Your task to perform on an android device: Add macbook pro 13 inch to the cart on ebay Image 0: 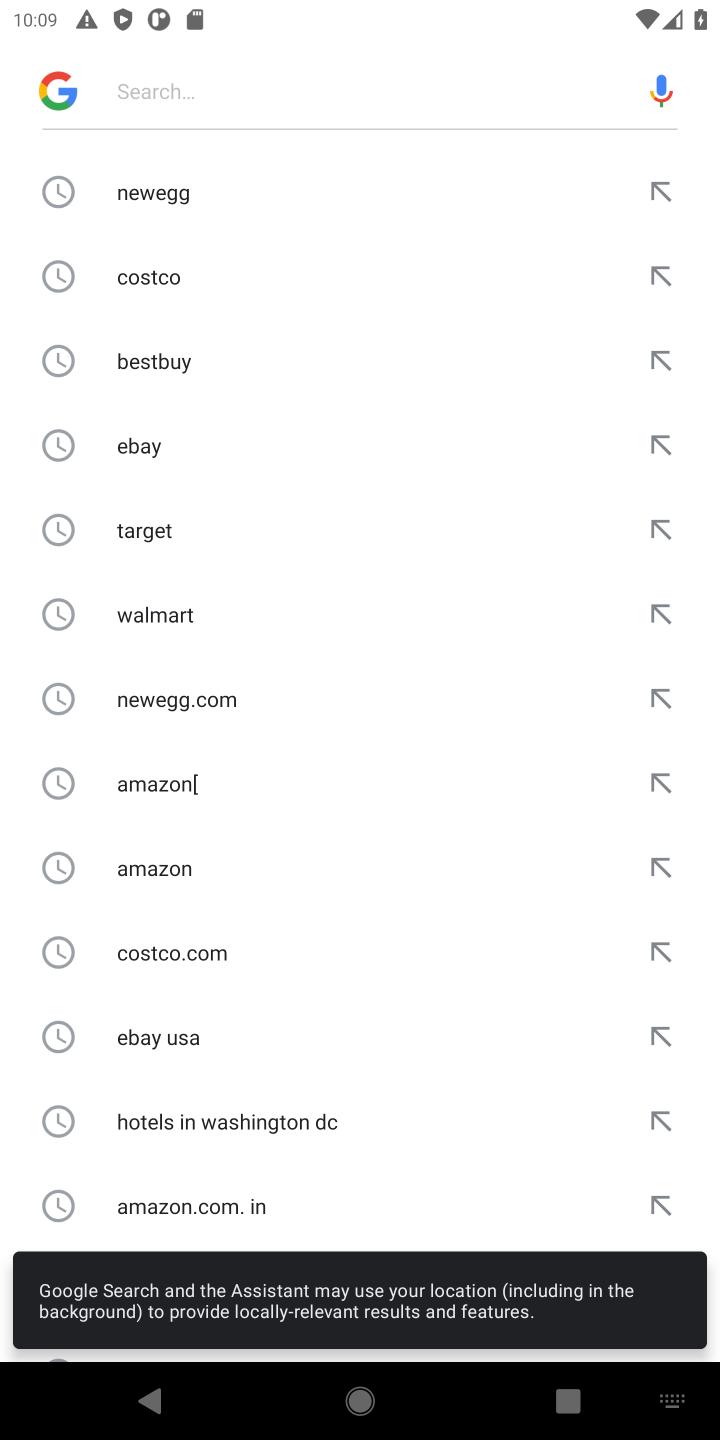
Step 0: press home button
Your task to perform on an android device: Add macbook pro 13 inch to the cart on ebay Image 1: 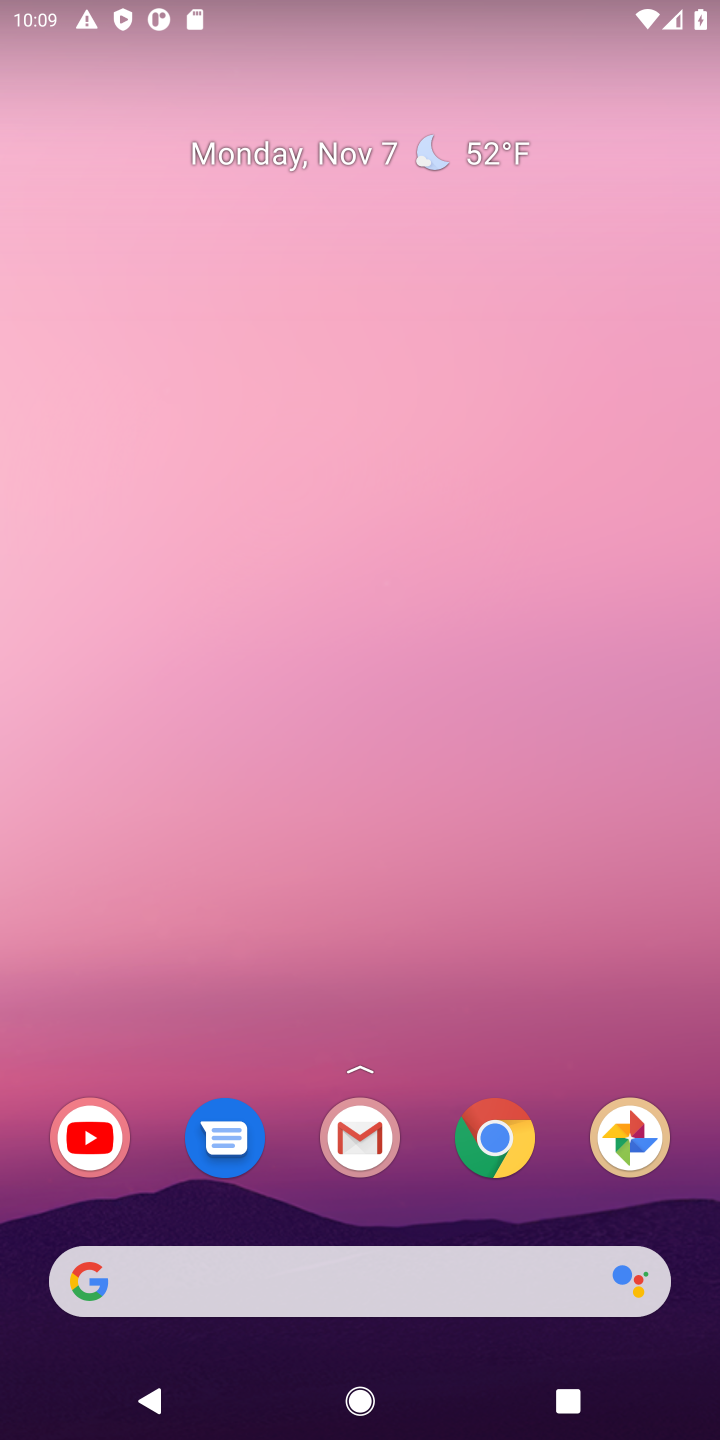
Step 1: press home button
Your task to perform on an android device: Add macbook pro 13 inch to the cart on ebay Image 2: 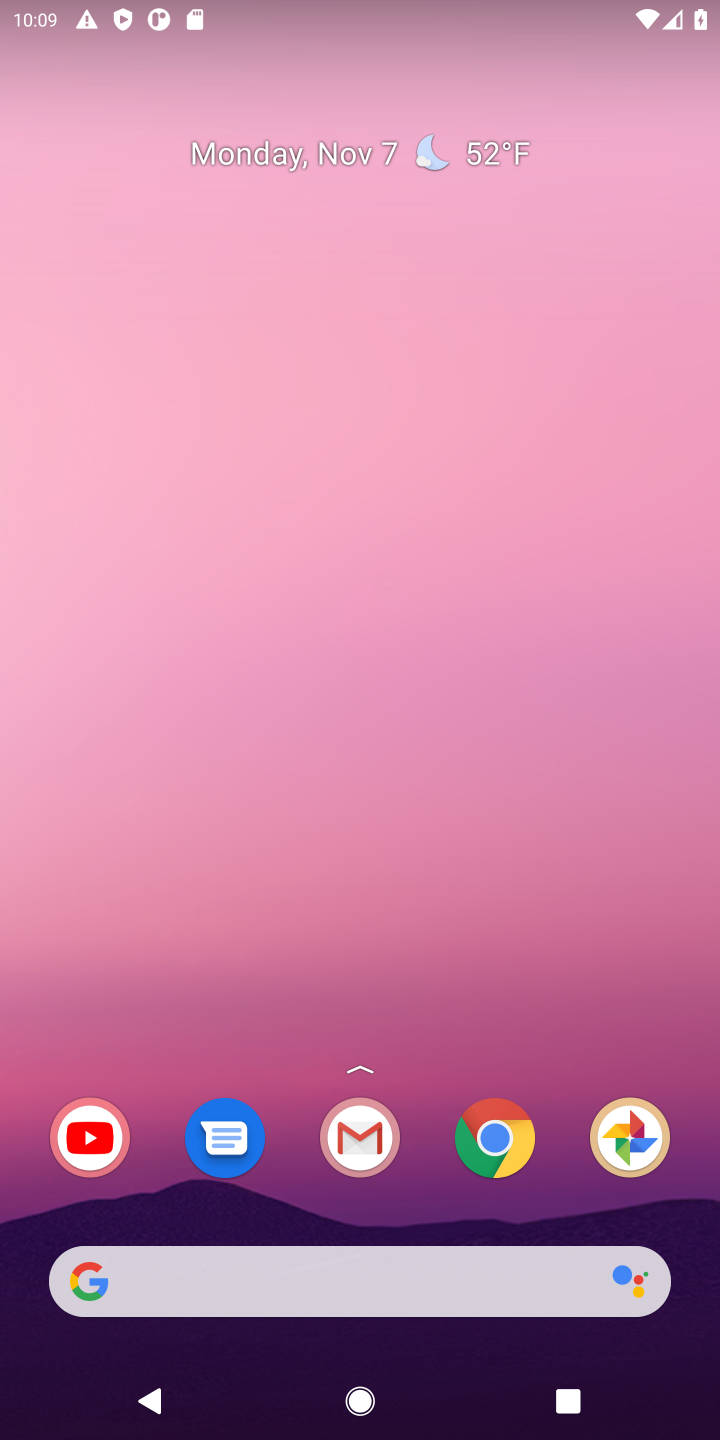
Step 2: click (474, 1142)
Your task to perform on an android device: Add macbook pro 13 inch to the cart on ebay Image 3: 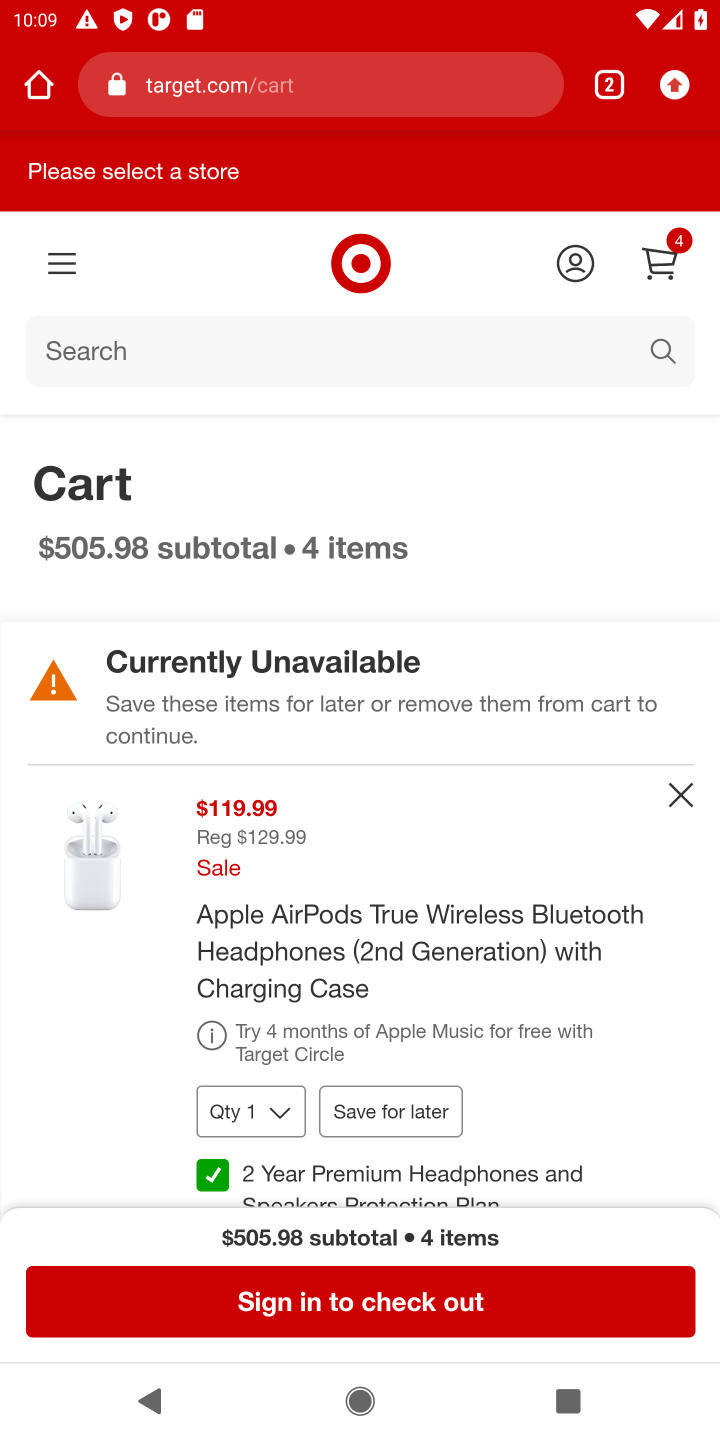
Step 3: click (186, 66)
Your task to perform on an android device: Add macbook pro 13 inch to the cart on ebay Image 4: 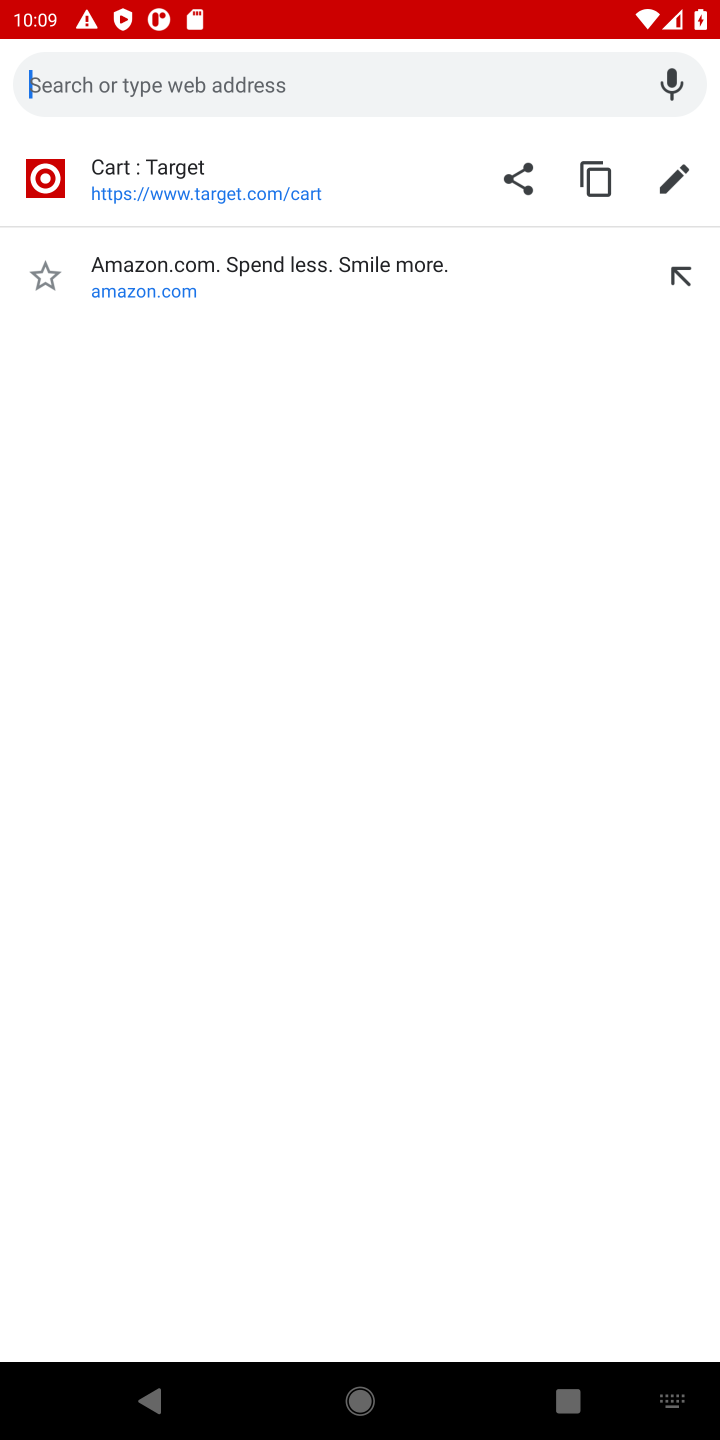
Step 4: type "ebay"
Your task to perform on an android device: Add macbook pro 13 inch to the cart on ebay Image 5: 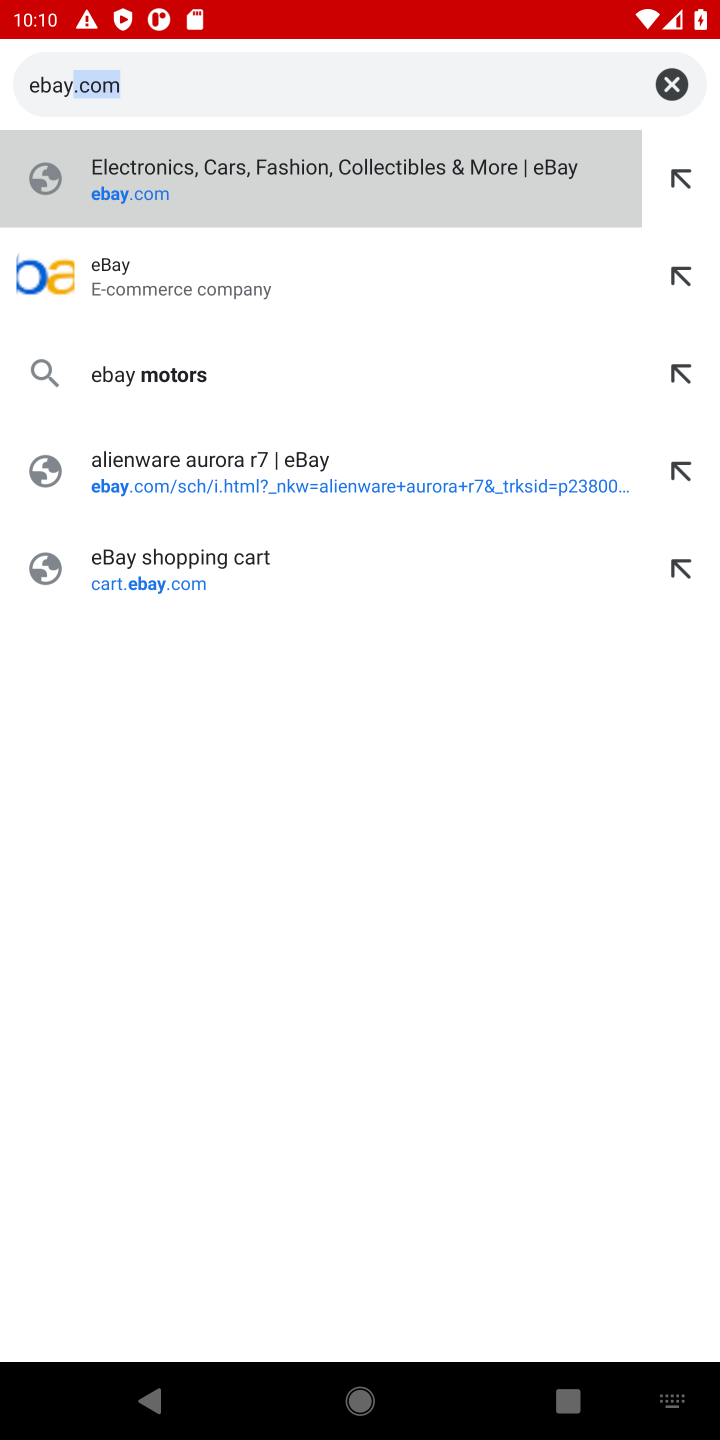
Step 5: click (71, 262)
Your task to perform on an android device: Add macbook pro 13 inch to the cart on ebay Image 6: 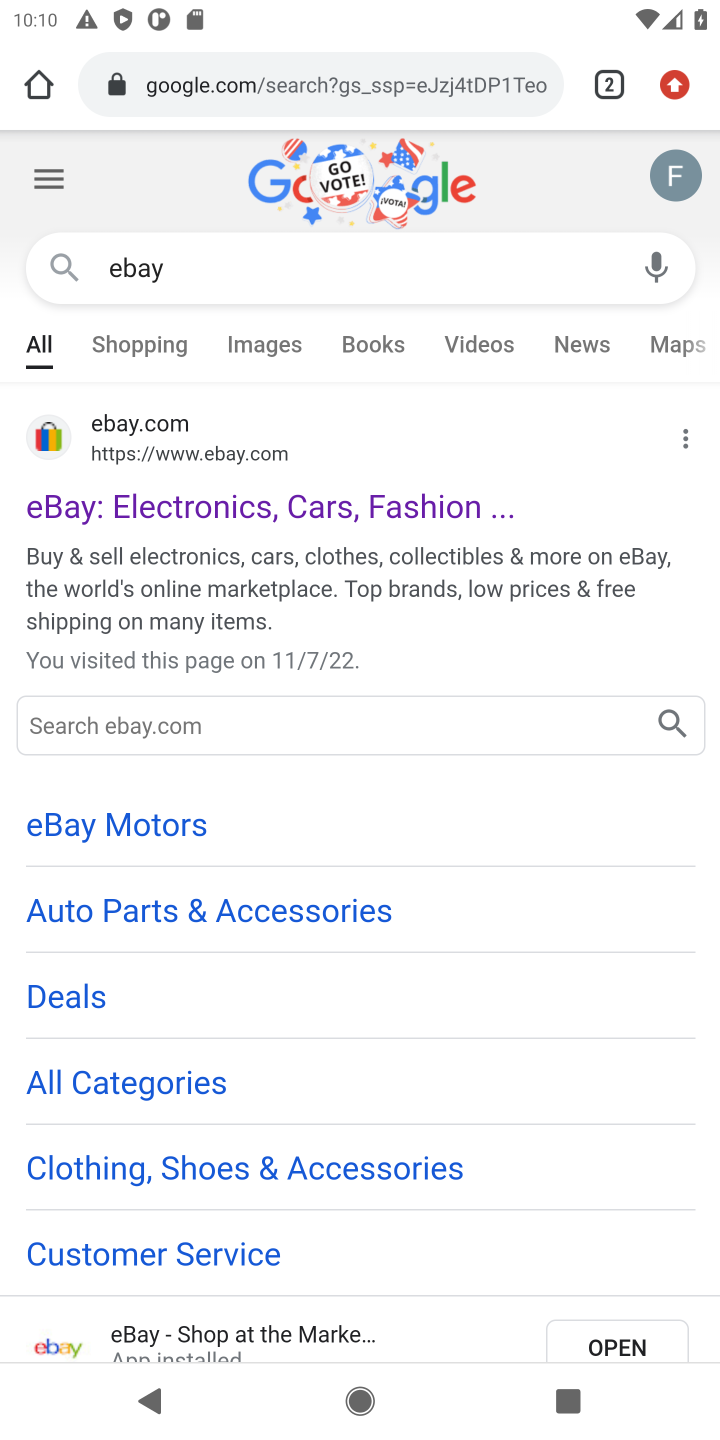
Step 6: click (396, 357)
Your task to perform on an android device: Add macbook pro 13 inch to the cart on ebay Image 7: 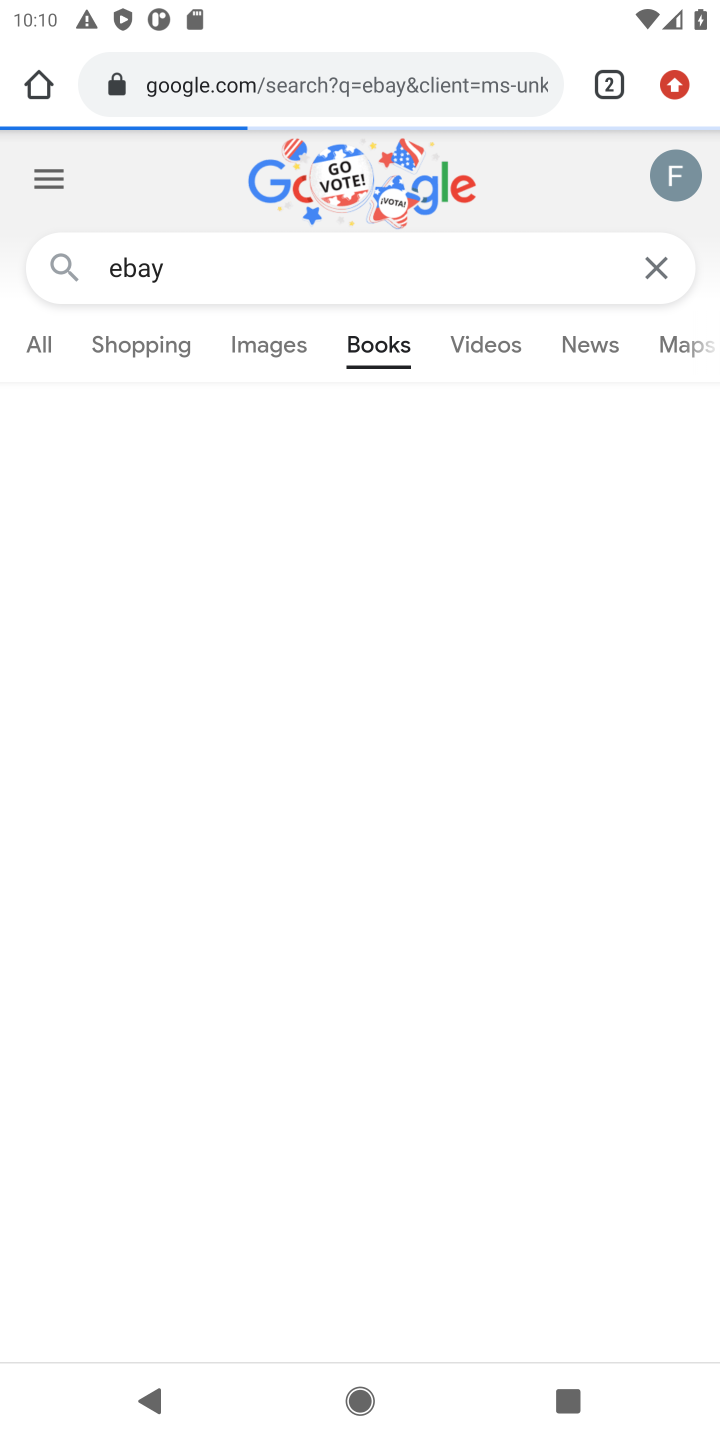
Step 7: click (208, 510)
Your task to perform on an android device: Add macbook pro 13 inch to the cart on ebay Image 8: 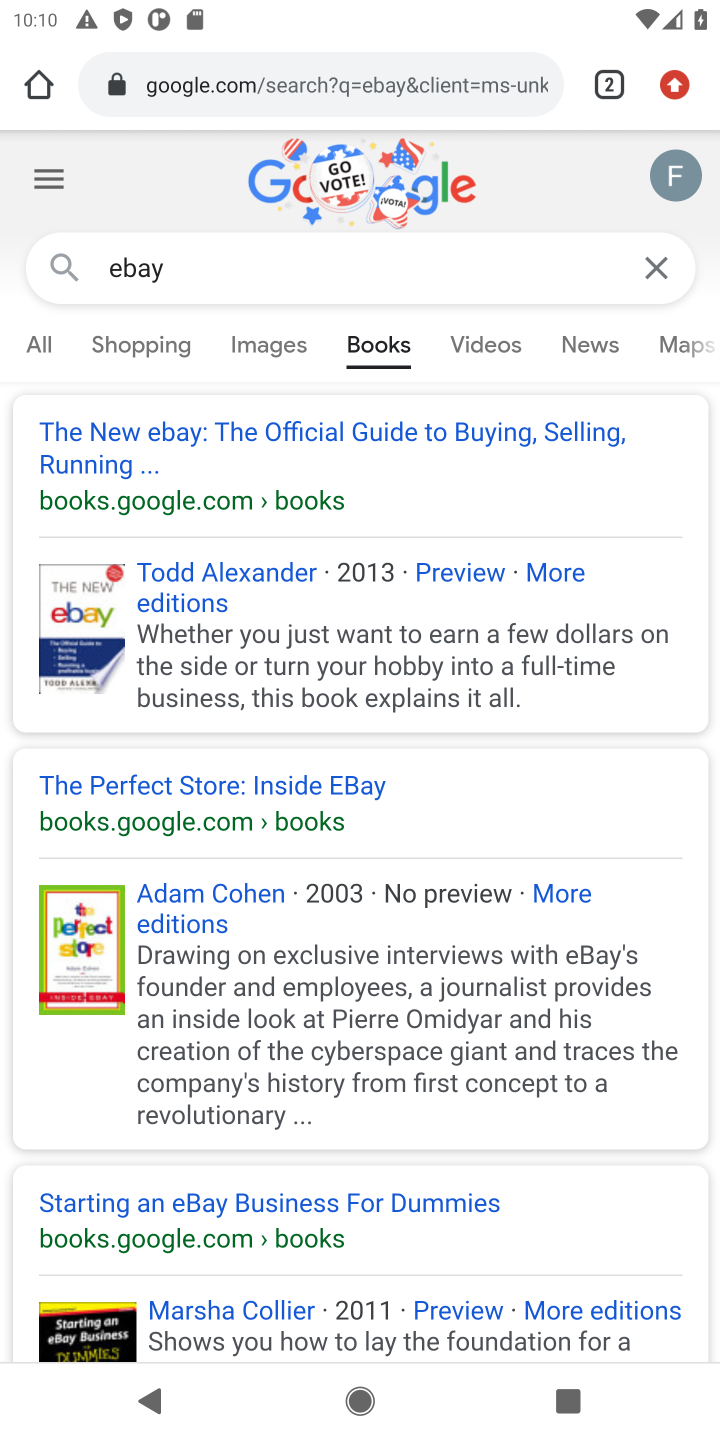
Step 8: drag from (279, 1093) to (422, 347)
Your task to perform on an android device: Add macbook pro 13 inch to the cart on ebay Image 9: 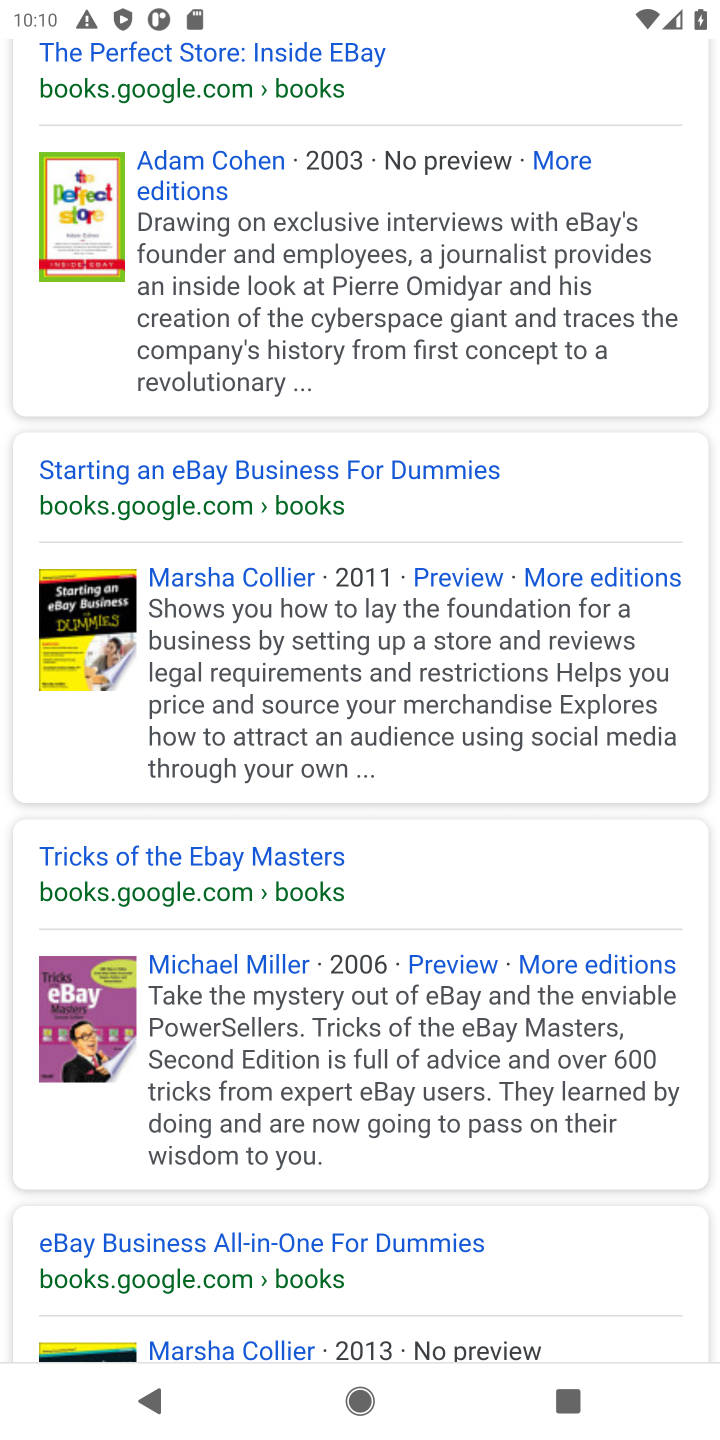
Step 9: press back button
Your task to perform on an android device: Add macbook pro 13 inch to the cart on ebay Image 10: 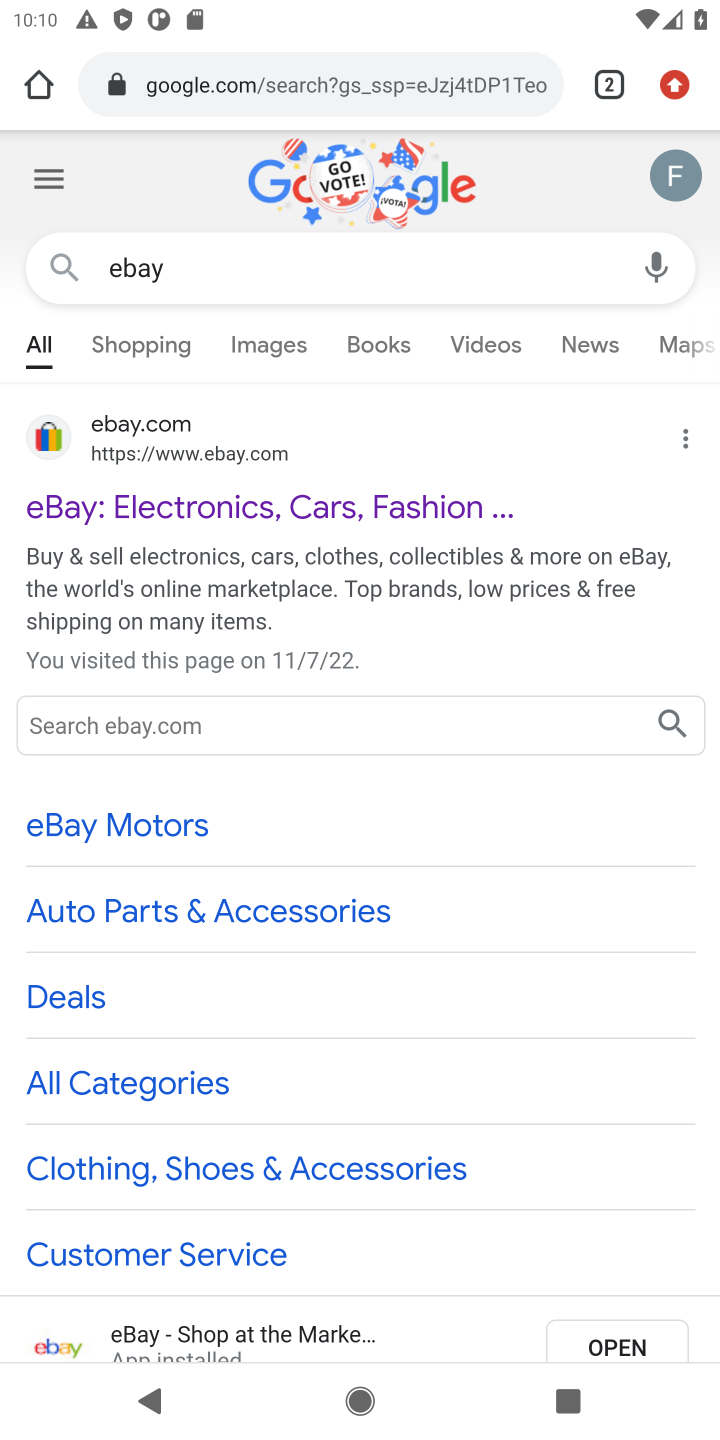
Step 10: drag from (249, 974) to (409, 344)
Your task to perform on an android device: Add macbook pro 13 inch to the cart on ebay Image 11: 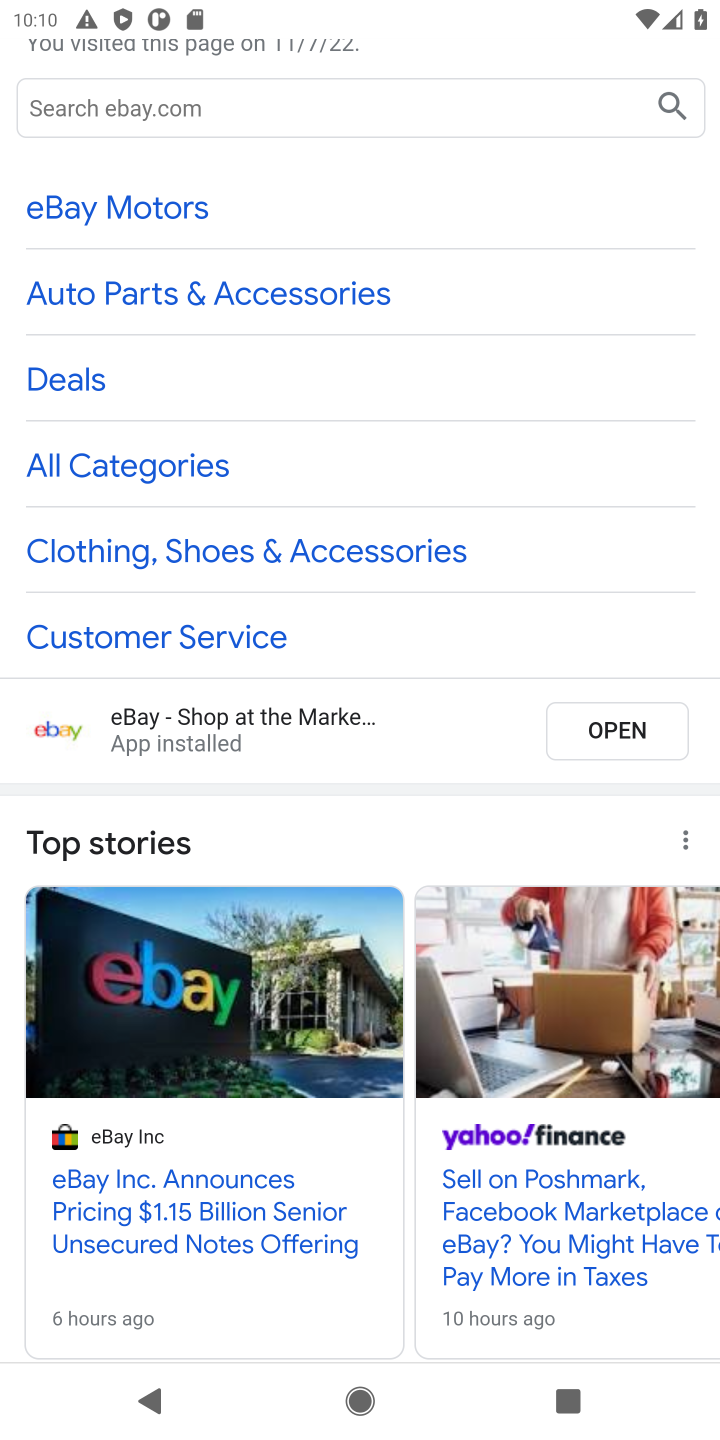
Step 11: drag from (170, 909) to (455, 307)
Your task to perform on an android device: Add macbook pro 13 inch to the cart on ebay Image 12: 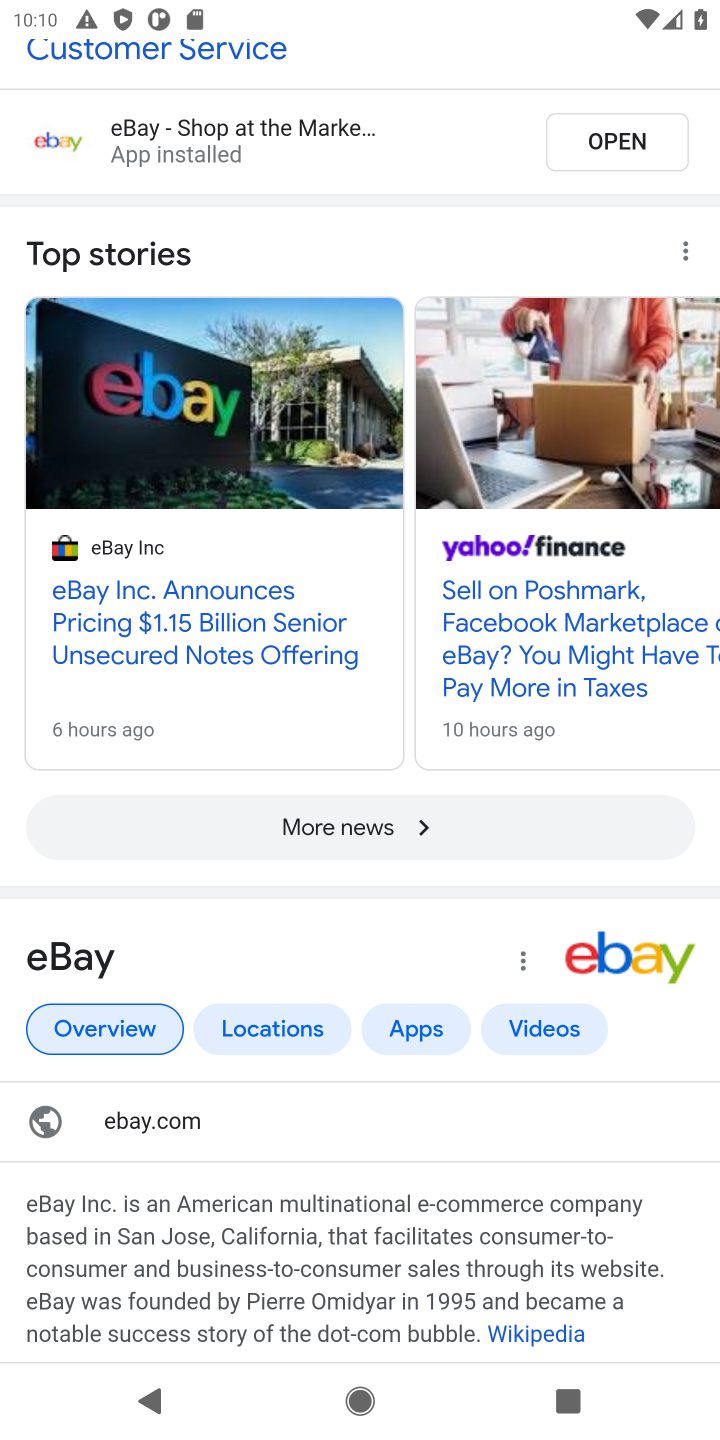
Step 12: drag from (411, 707) to (476, 1147)
Your task to perform on an android device: Add macbook pro 13 inch to the cart on ebay Image 13: 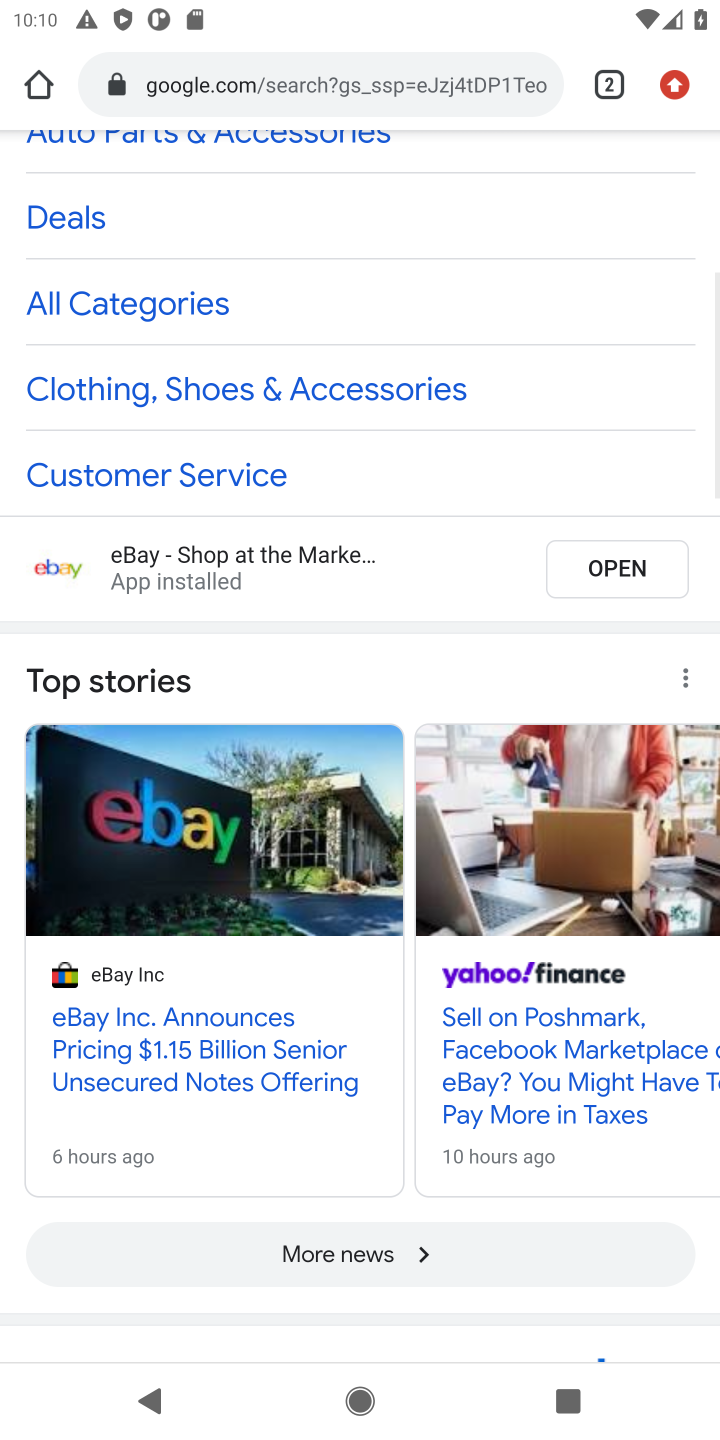
Step 13: drag from (252, 376) to (338, 1204)
Your task to perform on an android device: Add macbook pro 13 inch to the cart on ebay Image 14: 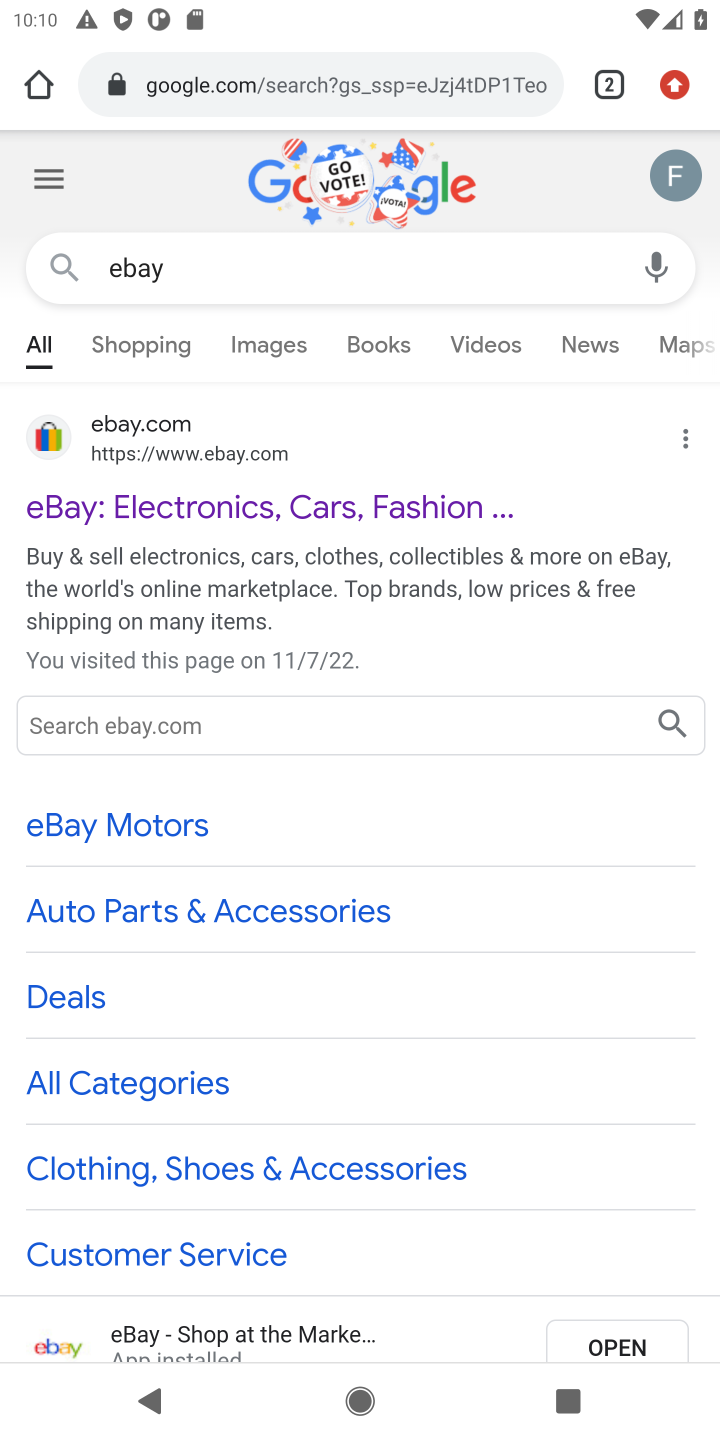
Step 14: click (176, 498)
Your task to perform on an android device: Add macbook pro 13 inch to the cart on ebay Image 15: 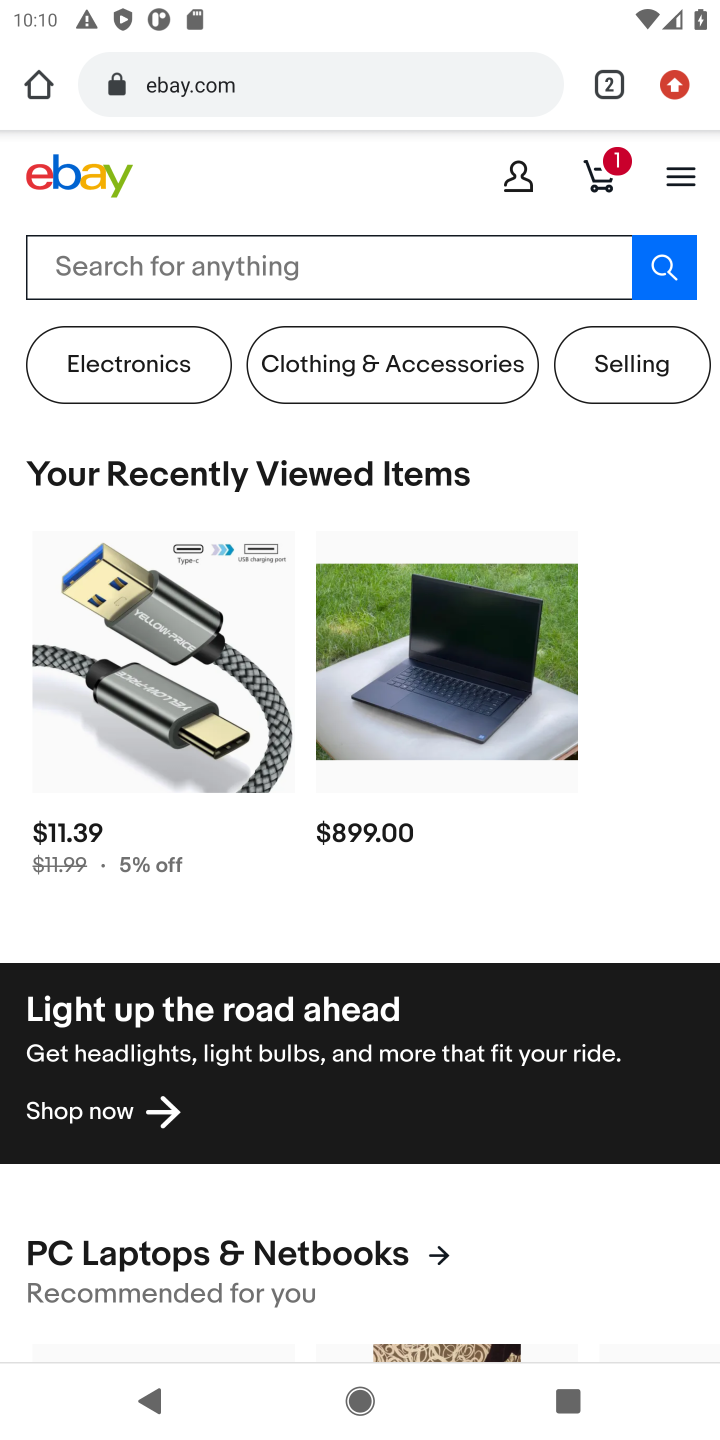
Step 15: click (275, 274)
Your task to perform on an android device: Add macbook pro 13 inch to the cart on ebay Image 16: 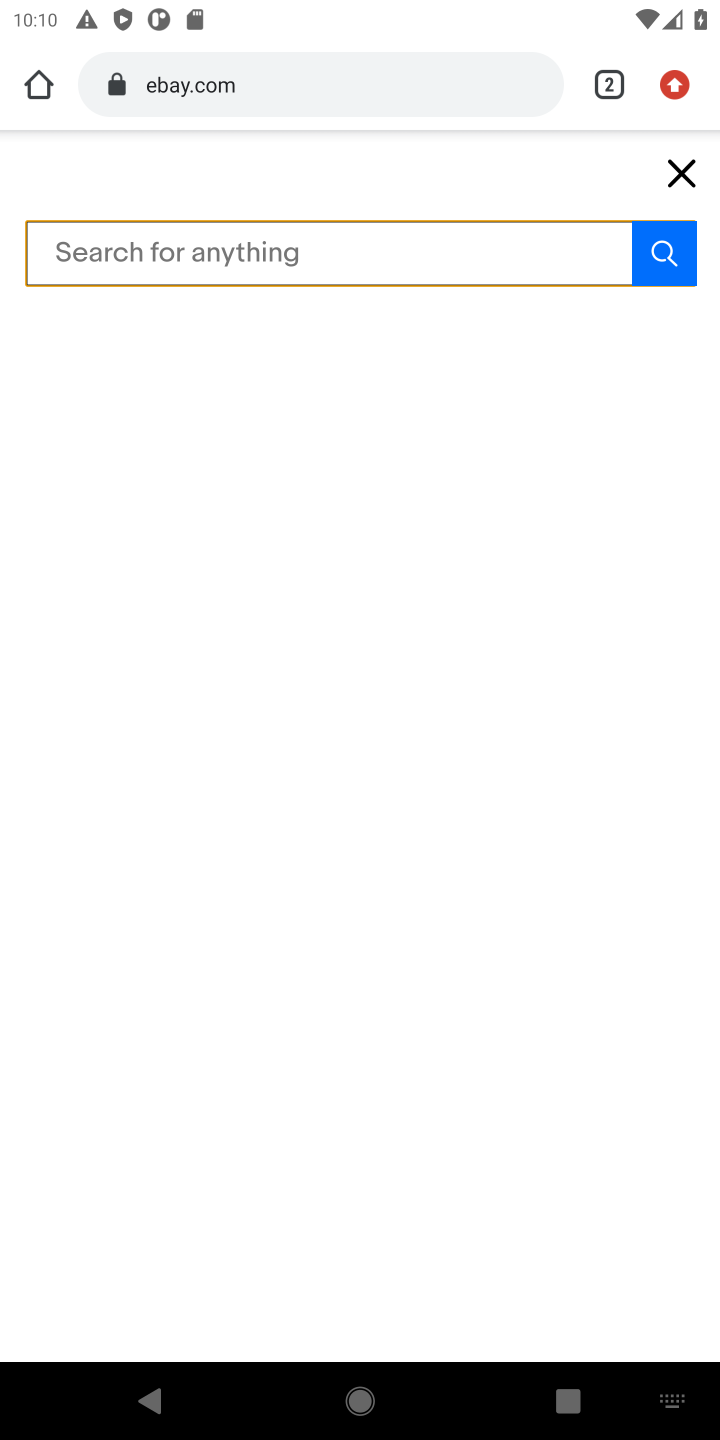
Step 16: type "macbook pro 13"
Your task to perform on an android device: Add macbook pro 13 inch to the cart on ebay Image 17: 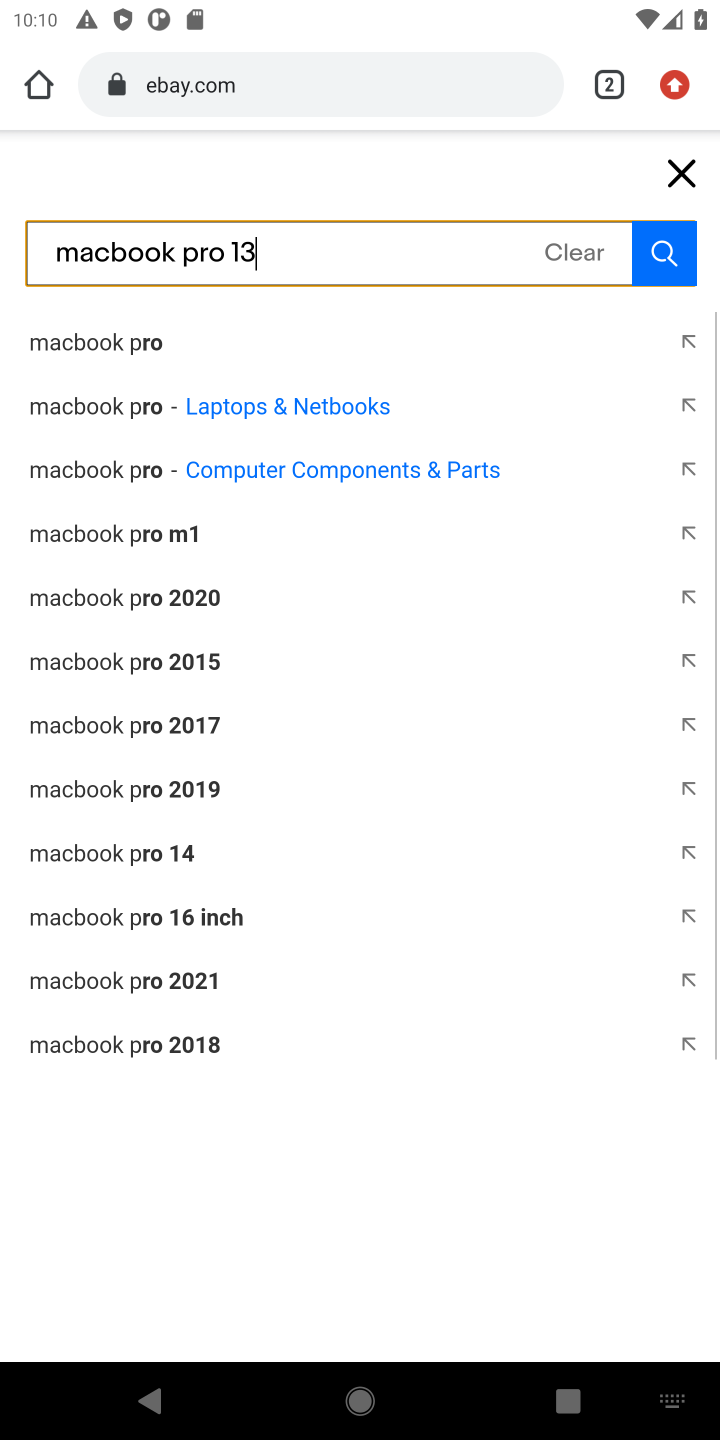
Step 17: type ""
Your task to perform on an android device: Add macbook pro 13 inch to the cart on ebay Image 18: 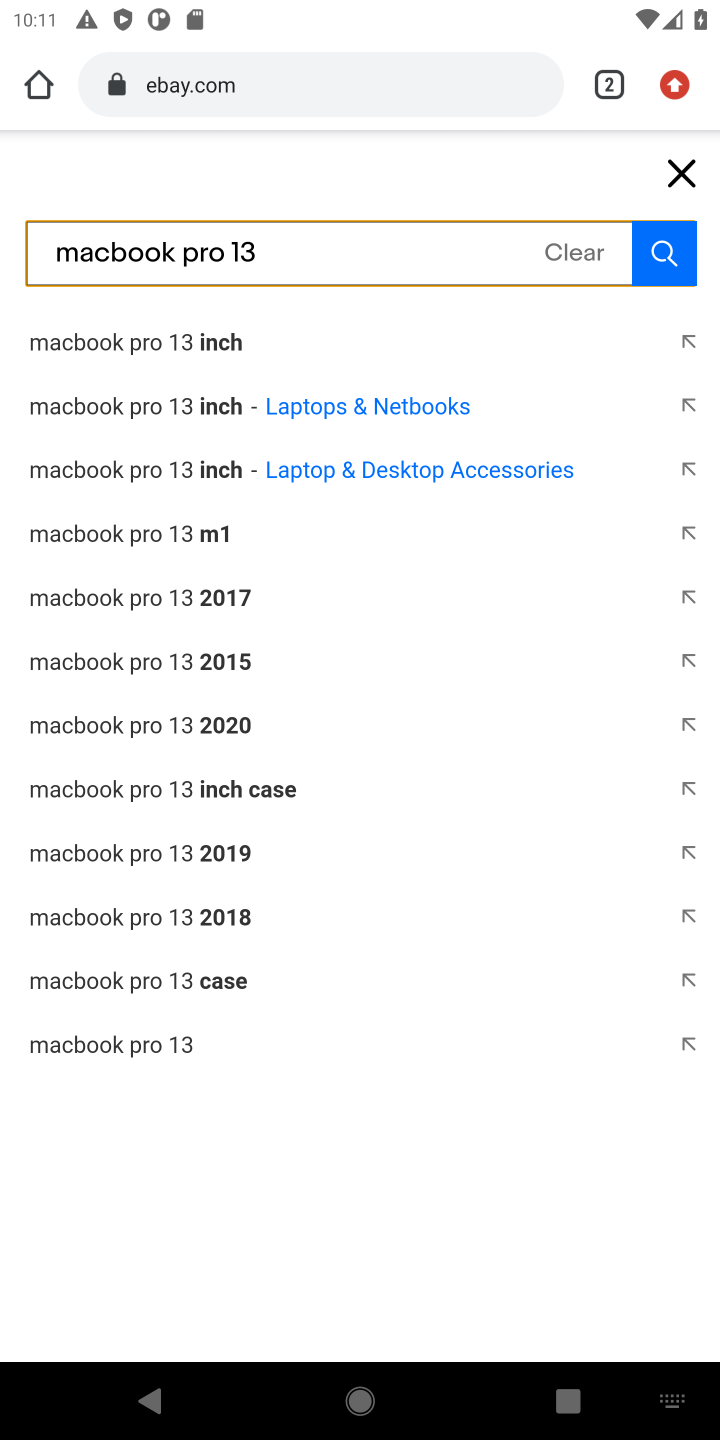
Step 18: click (164, 335)
Your task to perform on an android device: Add macbook pro 13 inch to the cart on ebay Image 19: 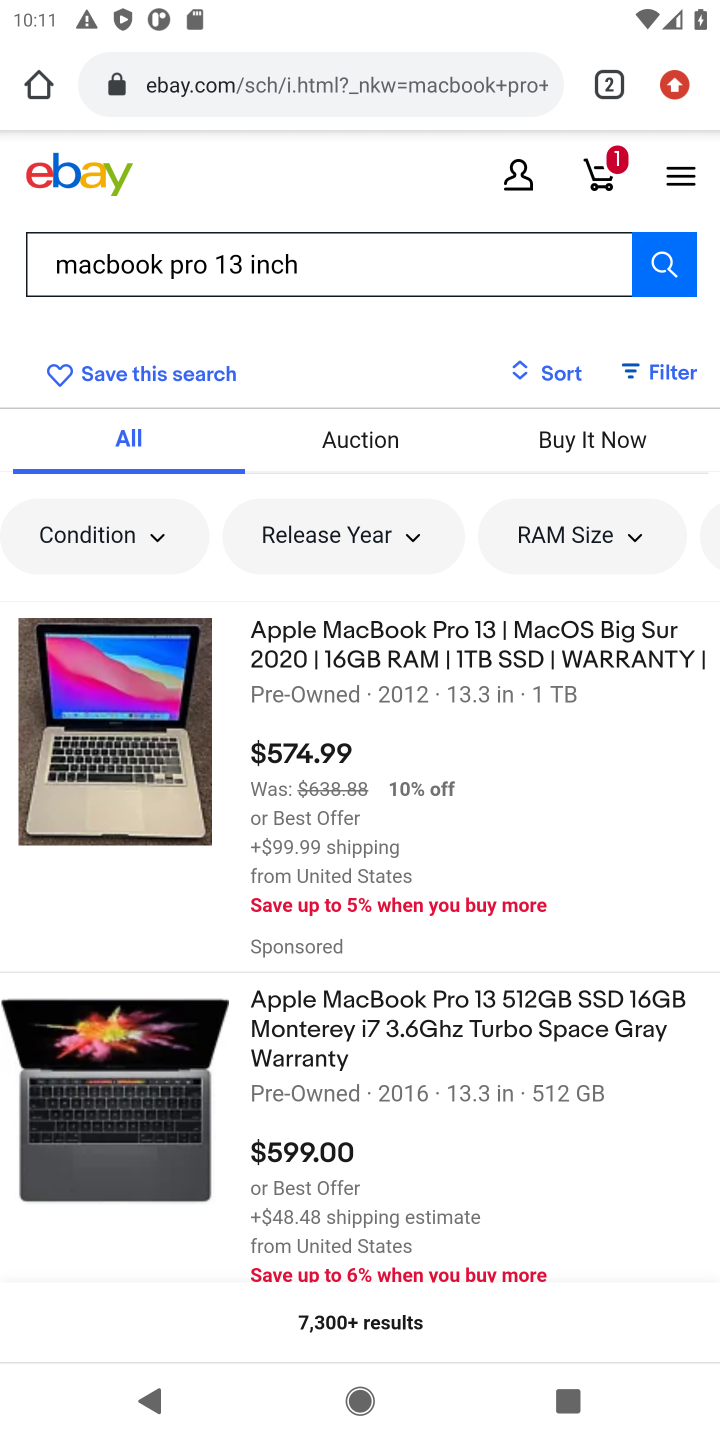
Step 19: click (393, 626)
Your task to perform on an android device: Add macbook pro 13 inch to the cart on ebay Image 20: 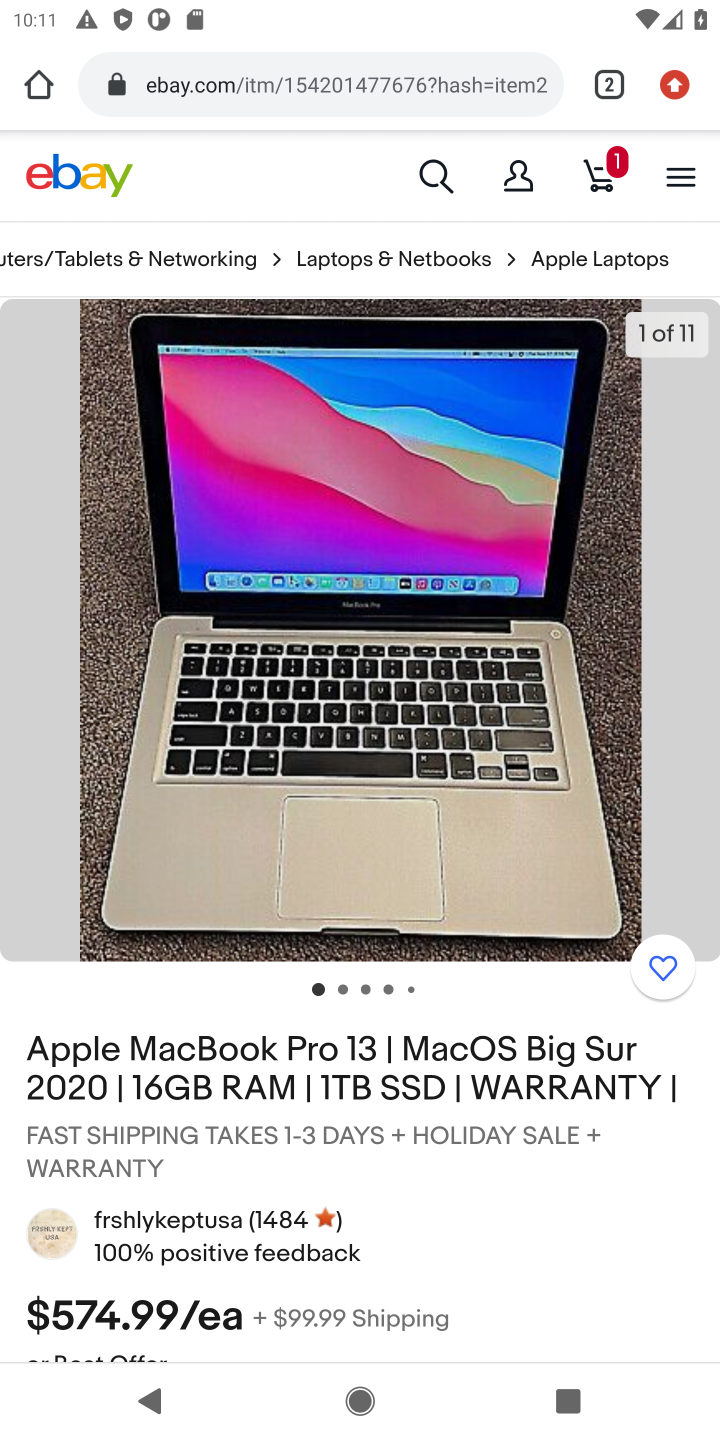
Step 20: drag from (454, 790) to (542, 321)
Your task to perform on an android device: Add macbook pro 13 inch to the cart on ebay Image 21: 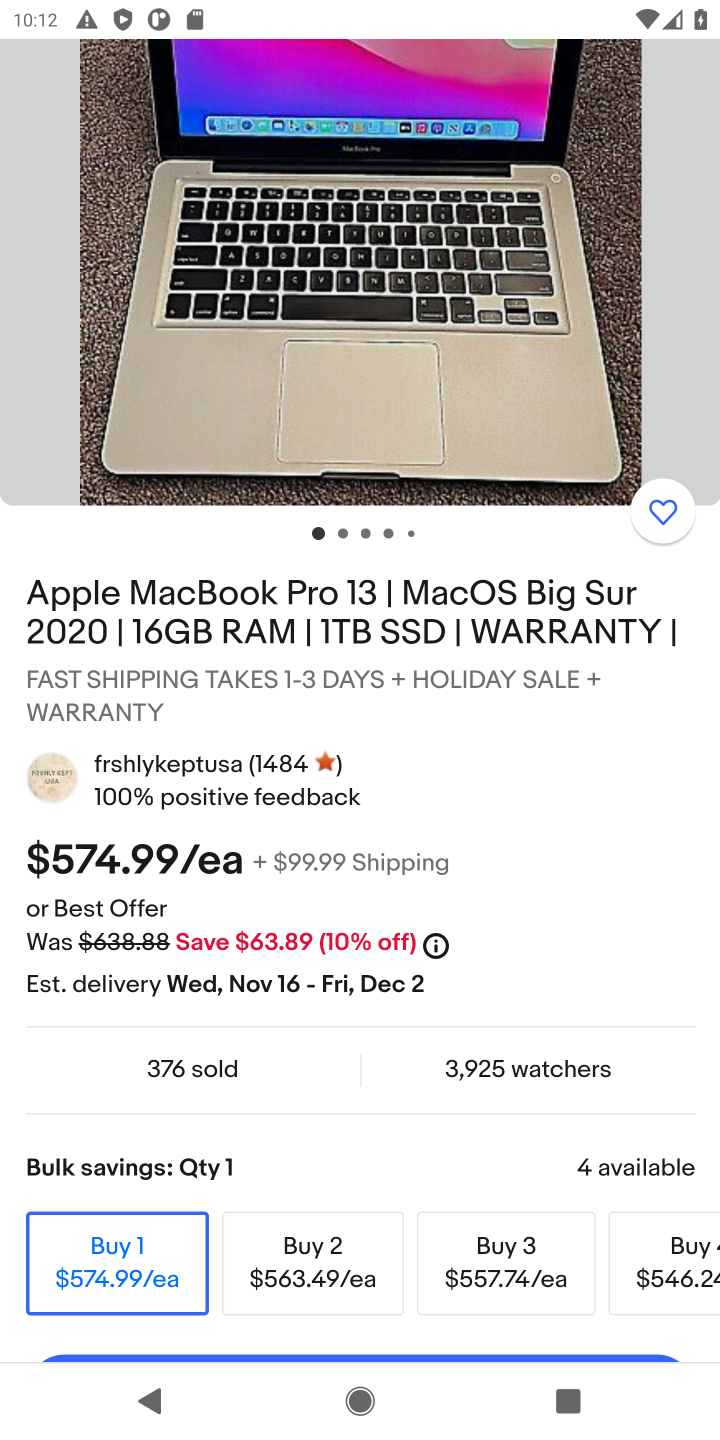
Step 21: drag from (538, 1025) to (505, 594)
Your task to perform on an android device: Add macbook pro 13 inch to the cart on ebay Image 22: 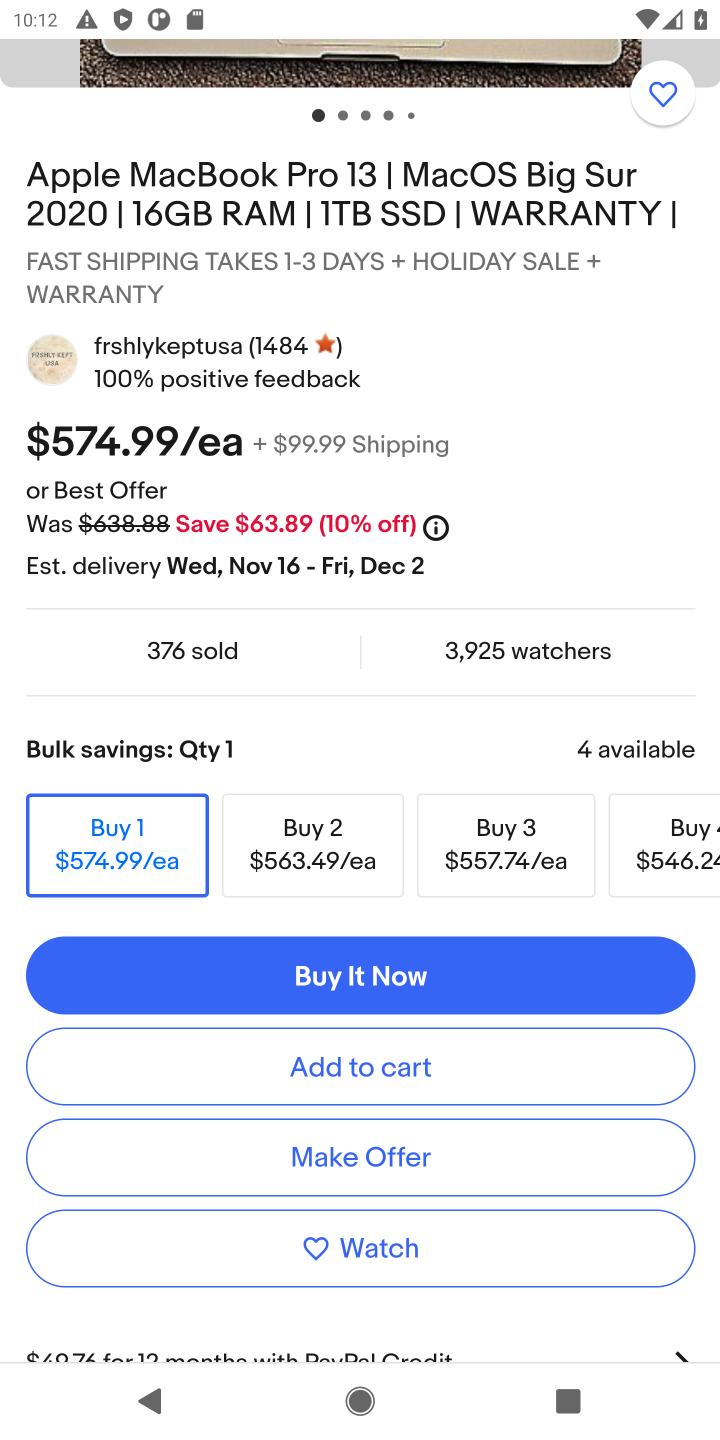
Step 22: click (386, 1065)
Your task to perform on an android device: Add macbook pro 13 inch to the cart on ebay Image 23: 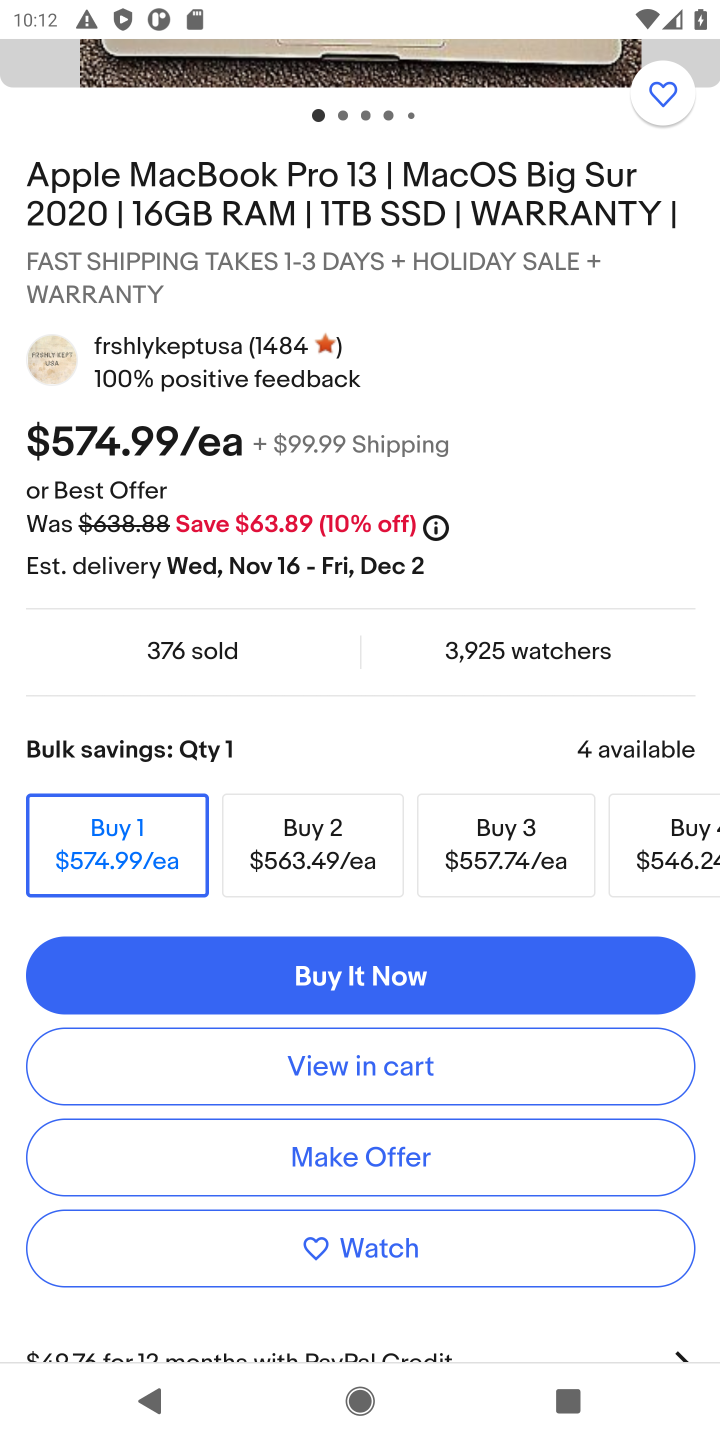
Step 23: click (386, 1065)
Your task to perform on an android device: Add macbook pro 13 inch to the cart on ebay Image 24: 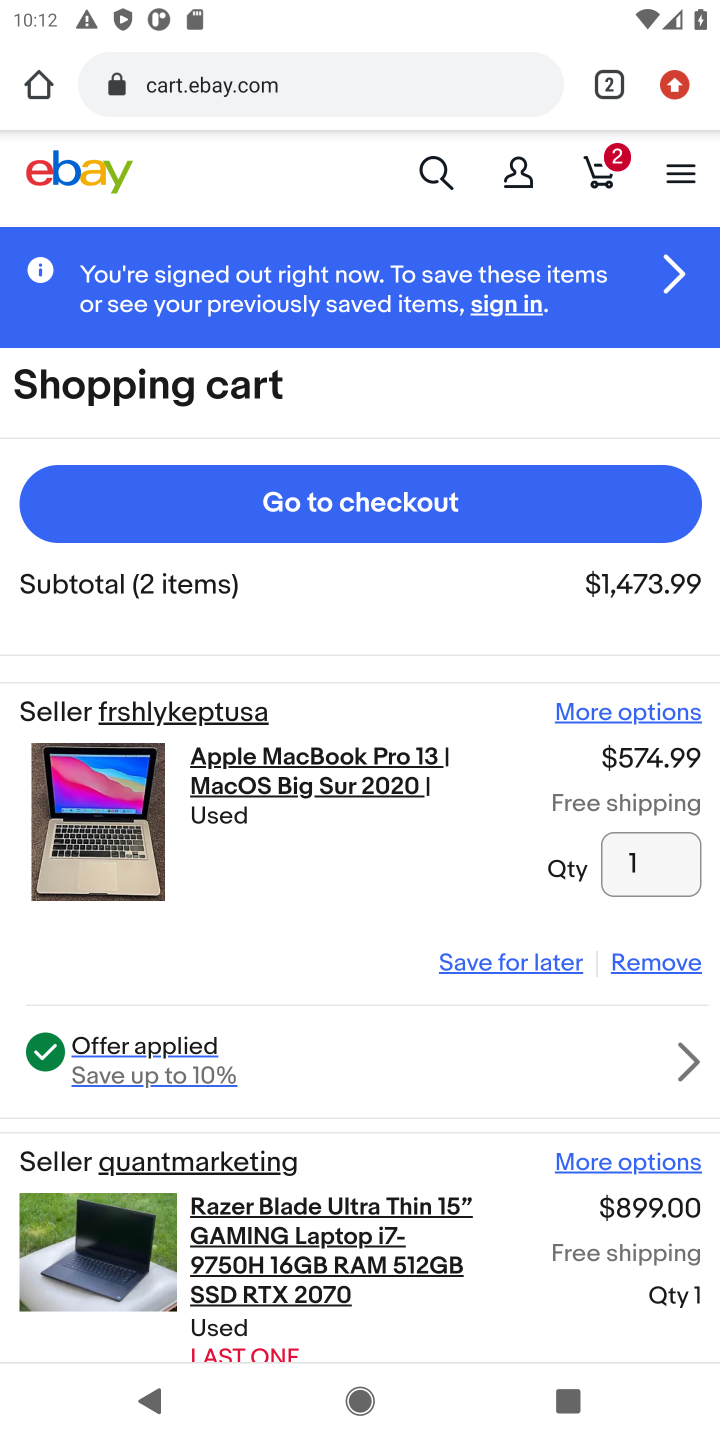
Step 24: task complete